Your task to perform on an android device: Show me recent news Image 0: 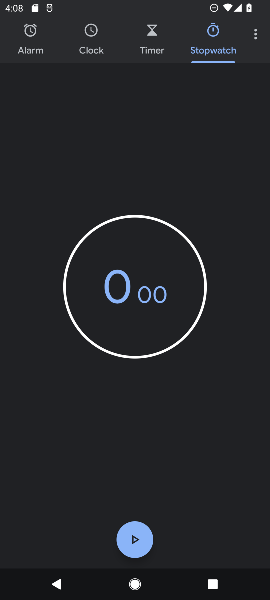
Step 0: press home button
Your task to perform on an android device: Show me recent news Image 1: 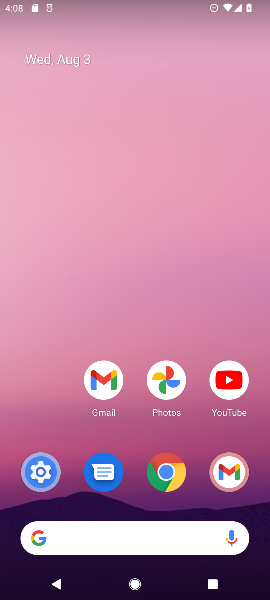
Step 1: drag from (219, 507) to (76, 5)
Your task to perform on an android device: Show me recent news Image 2: 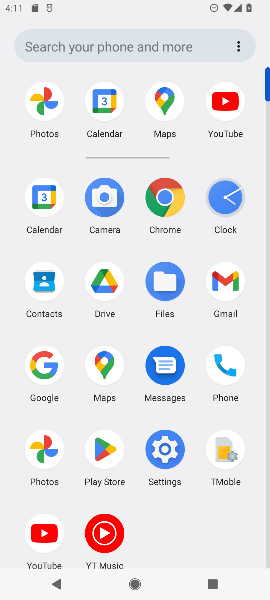
Step 2: click (49, 364)
Your task to perform on an android device: Show me recent news Image 3: 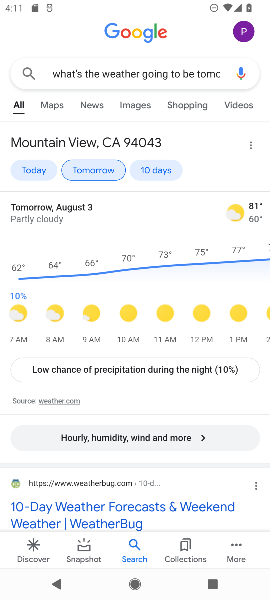
Step 3: press back button
Your task to perform on an android device: Show me recent news Image 4: 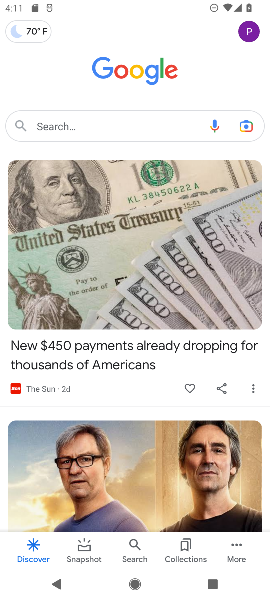
Step 4: click (61, 123)
Your task to perform on an android device: Show me recent news Image 5: 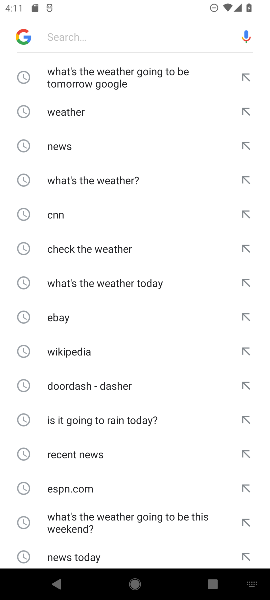
Step 5: type "Show me recent news"
Your task to perform on an android device: Show me recent news Image 6: 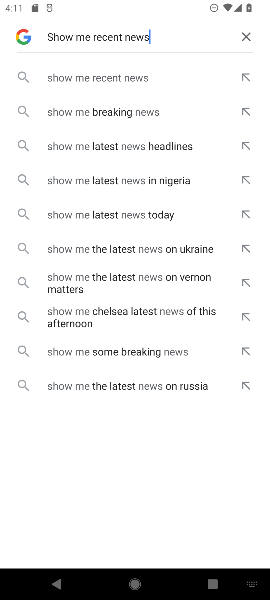
Step 6: click (92, 76)
Your task to perform on an android device: Show me recent news Image 7: 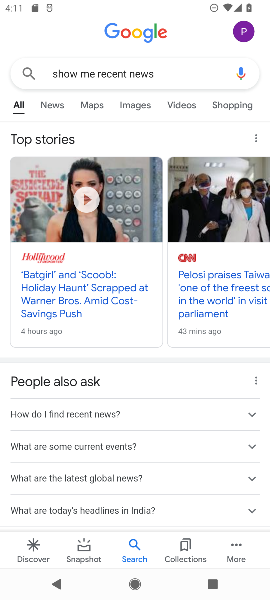
Step 7: task complete